Your task to perform on an android device: turn off sleep mode Image 0: 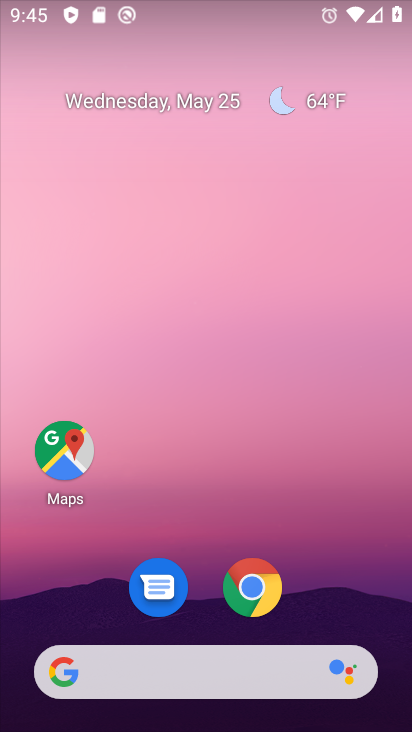
Step 0: drag from (95, 628) to (189, 217)
Your task to perform on an android device: turn off sleep mode Image 1: 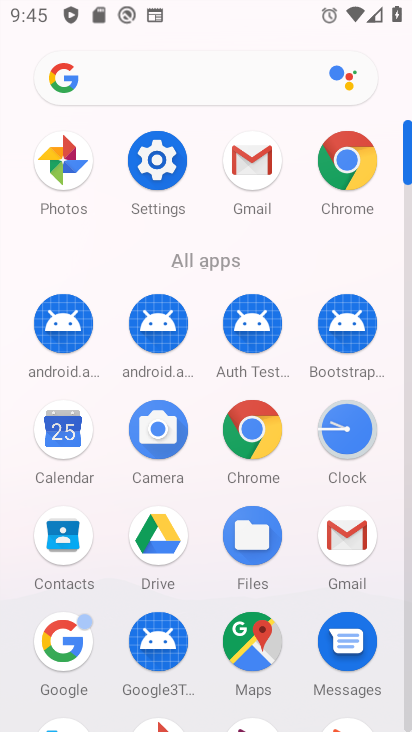
Step 1: drag from (188, 579) to (256, 333)
Your task to perform on an android device: turn off sleep mode Image 2: 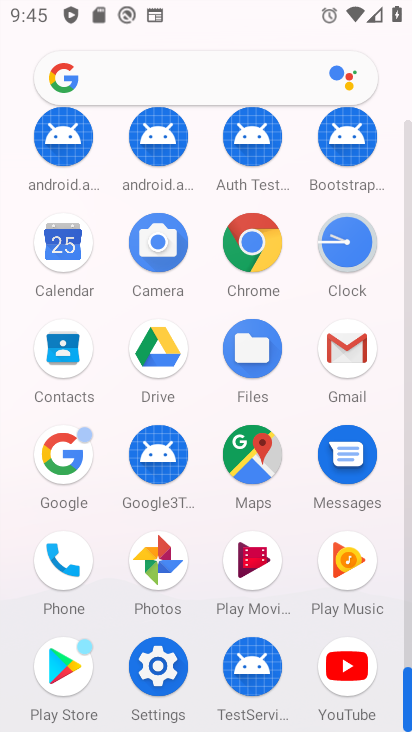
Step 2: click (163, 662)
Your task to perform on an android device: turn off sleep mode Image 3: 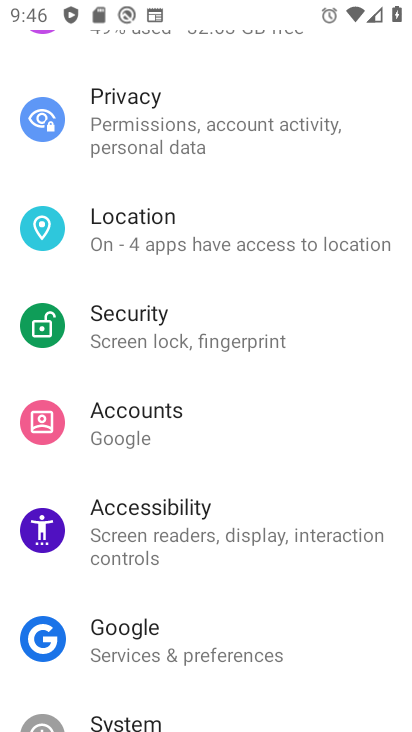
Step 3: drag from (169, 369) to (159, 731)
Your task to perform on an android device: turn off sleep mode Image 4: 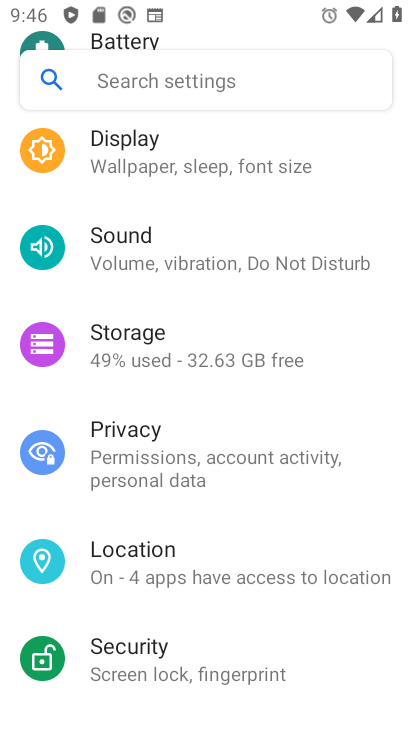
Step 4: drag from (236, 315) to (207, 731)
Your task to perform on an android device: turn off sleep mode Image 5: 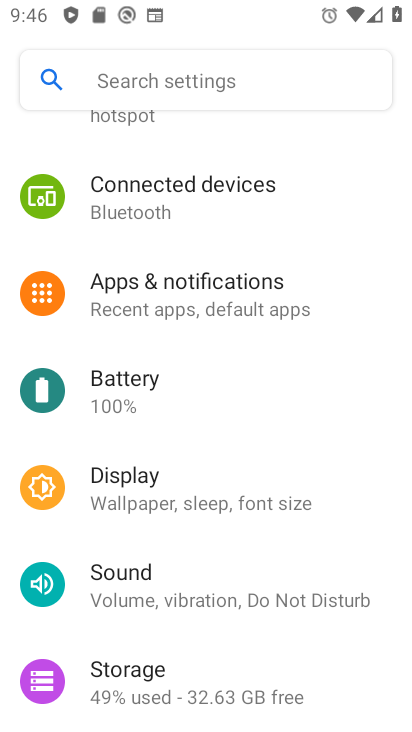
Step 5: click (203, 505)
Your task to perform on an android device: turn off sleep mode Image 6: 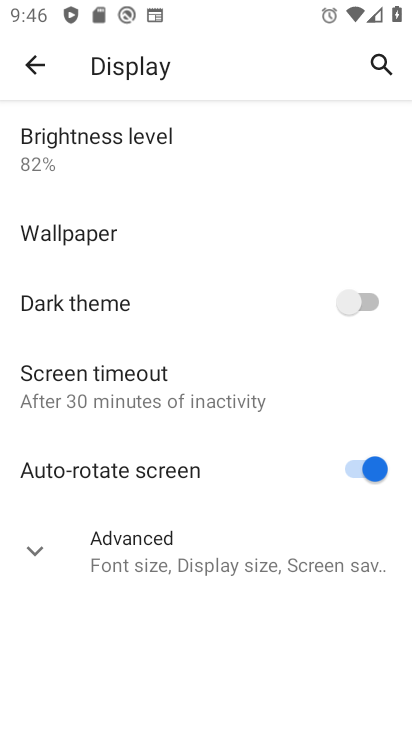
Step 6: click (142, 549)
Your task to perform on an android device: turn off sleep mode Image 7: 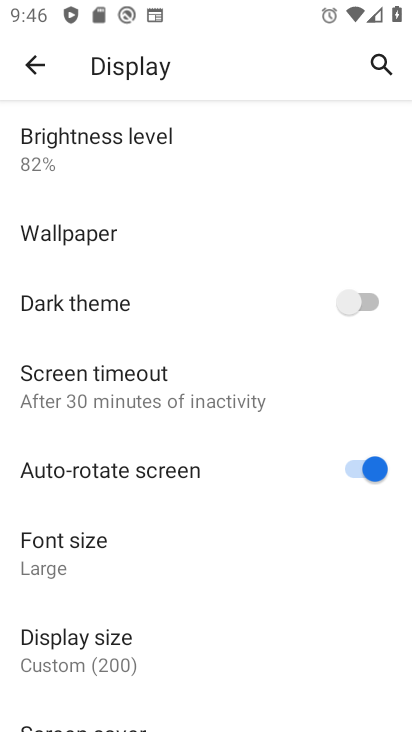
Step 7: task complete